Your task to perform on an android device: open app "Truecaller" Image 0: 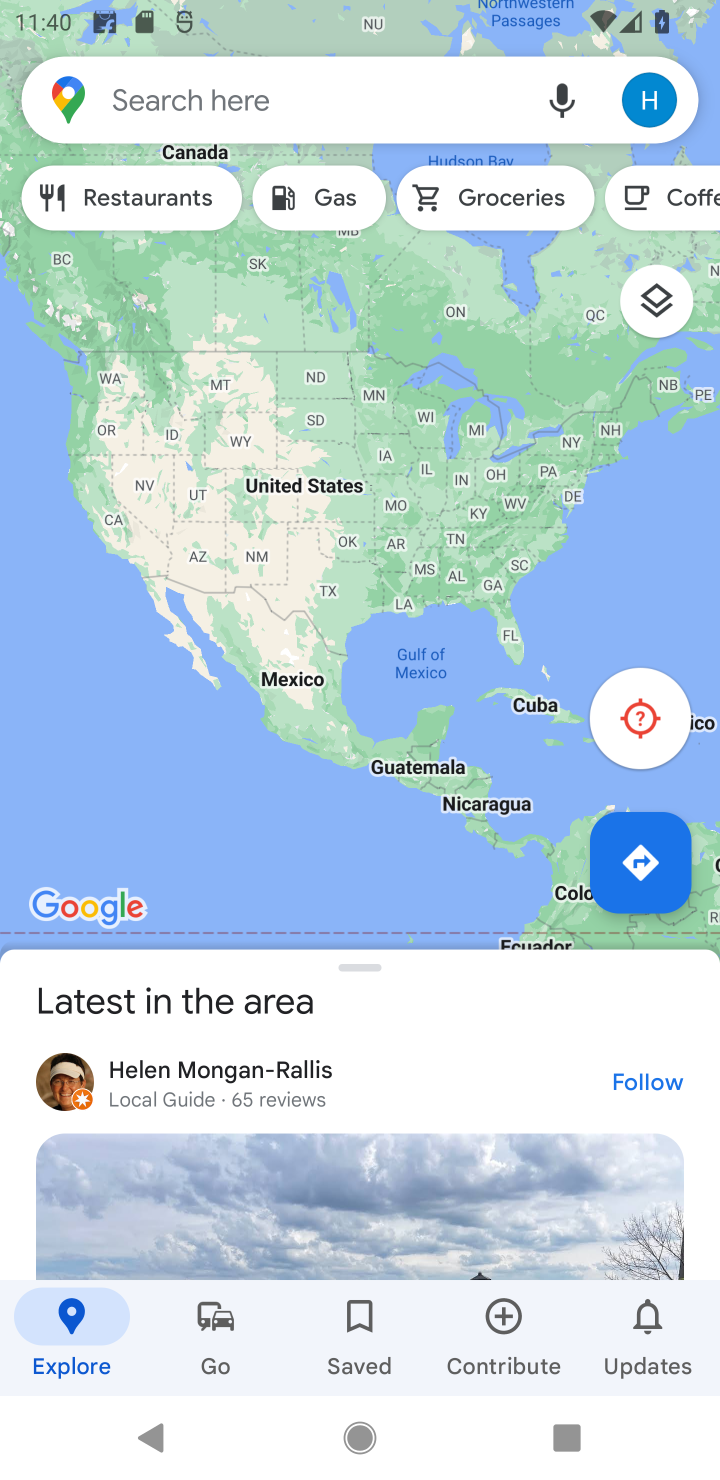
Step 0: press home button
Your task to perform on an android device: open app "Truecaller" Image 1: 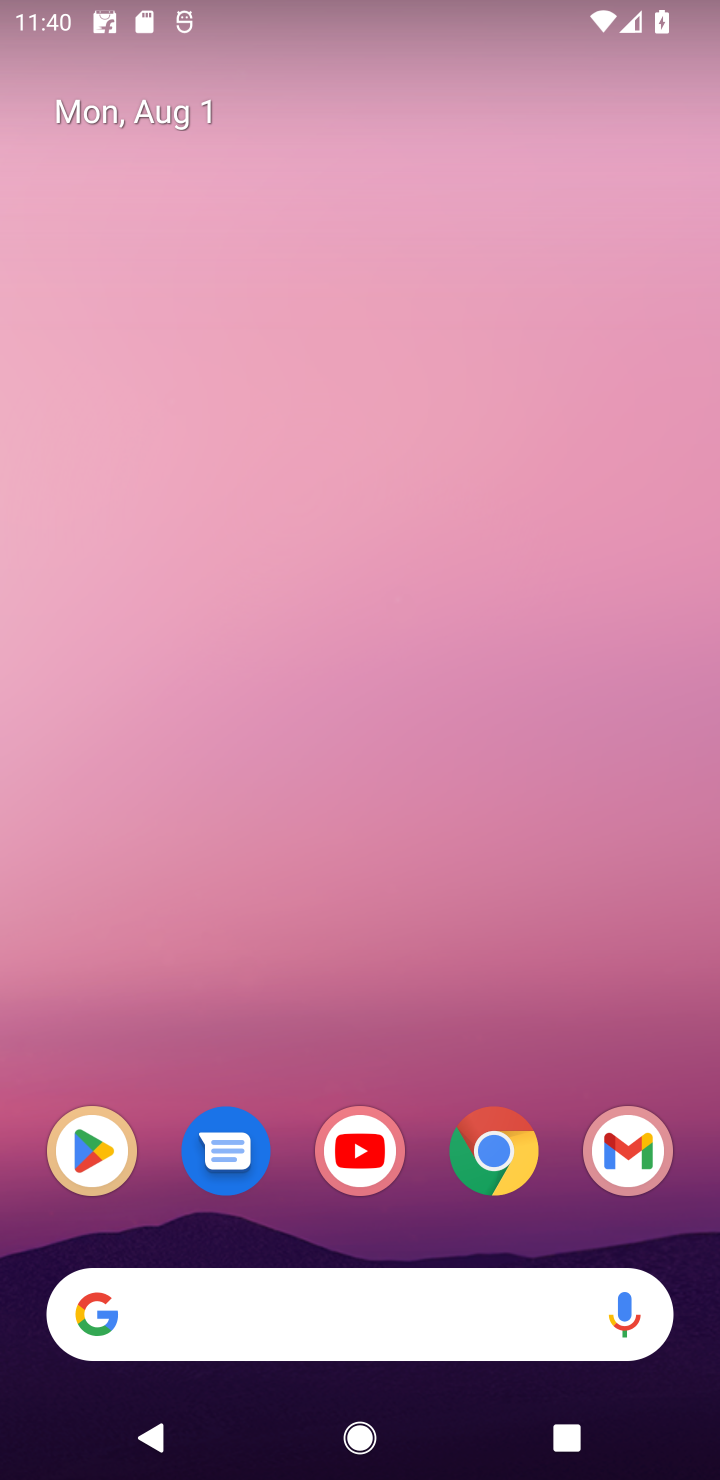
Step 1: click (111, 1146)
Your task to perform on an android device: open app "Truecaller" Image 2: 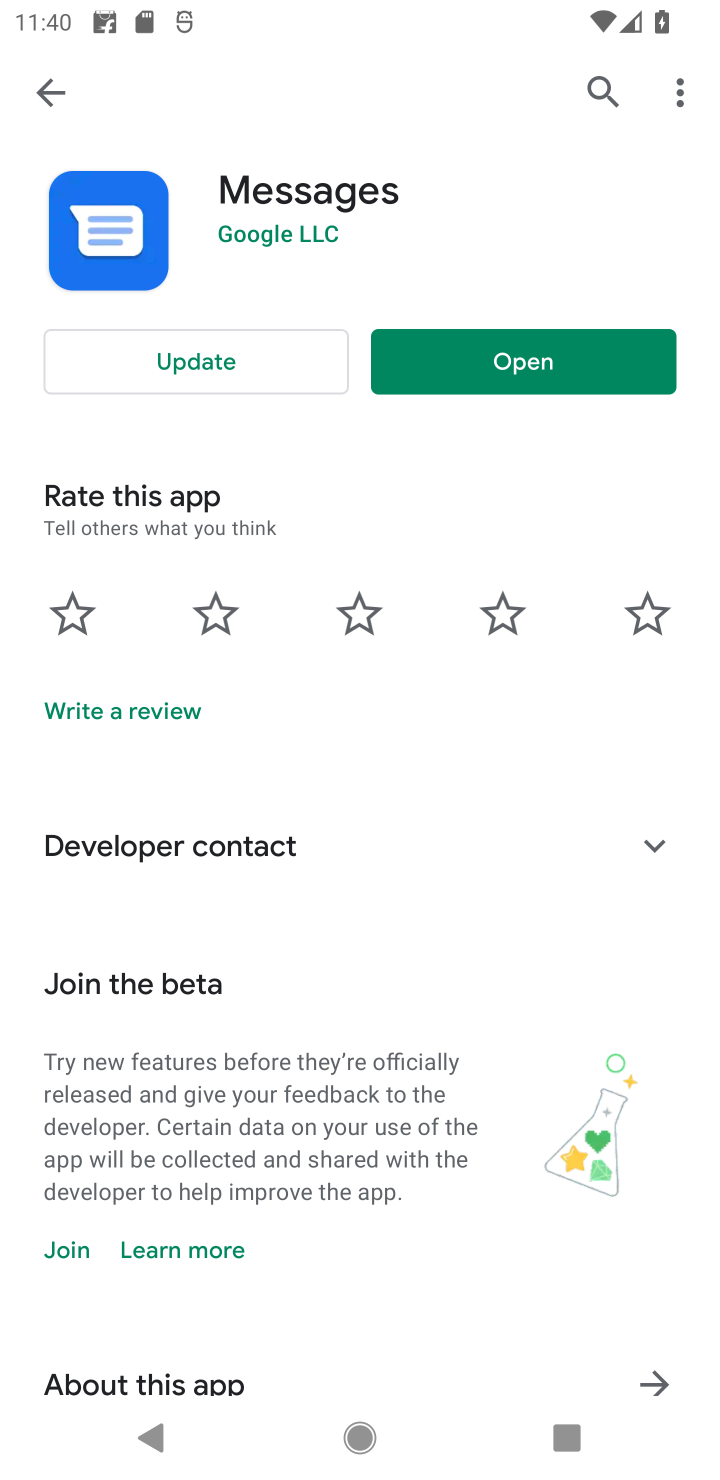
Step 2: click (608, 106)
Your task to perform on an android device: open app "Truecaller" Image 3: 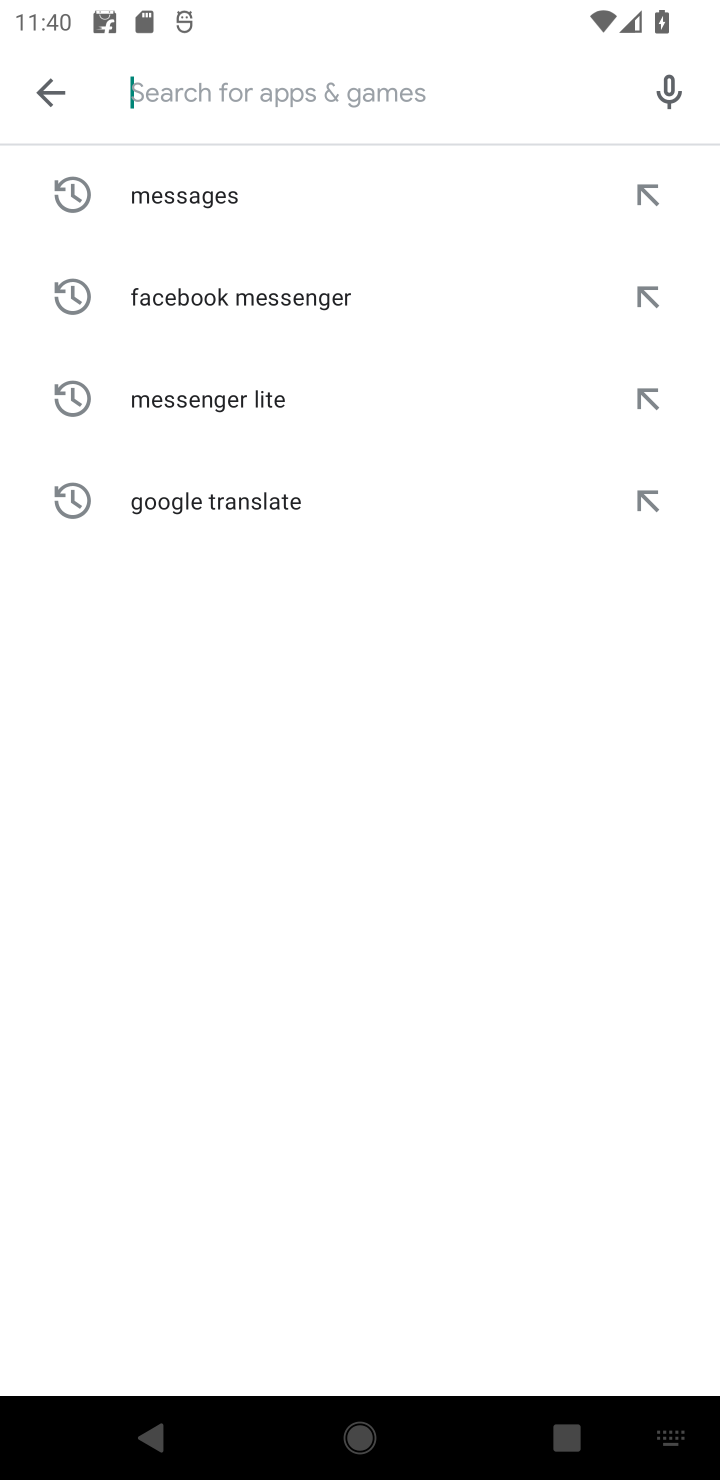
Step 3: type "Truecaller"
Your task to perform on an android device: open app "Truecaller" Image 4: 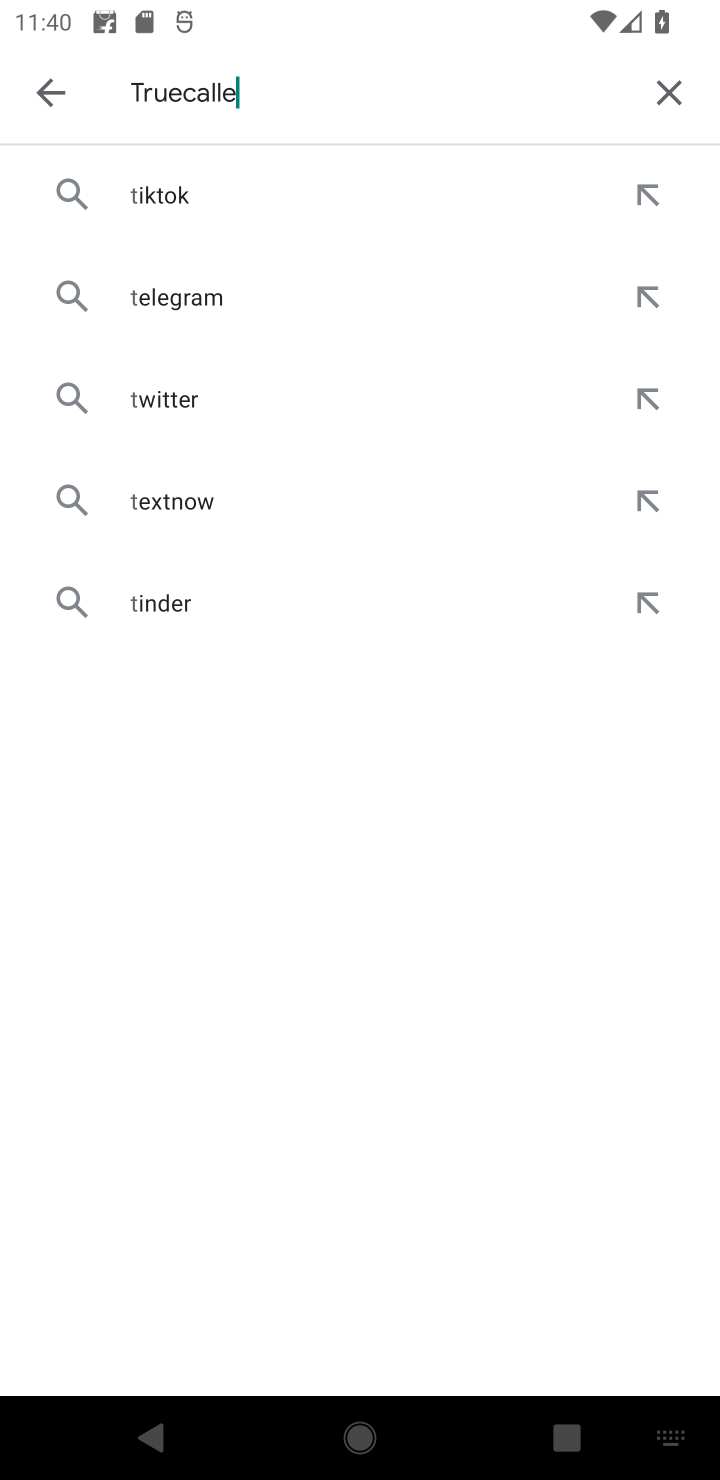
Step 4: type ""
Your task to perform on an android device: open app "Truecaller" Image 5: 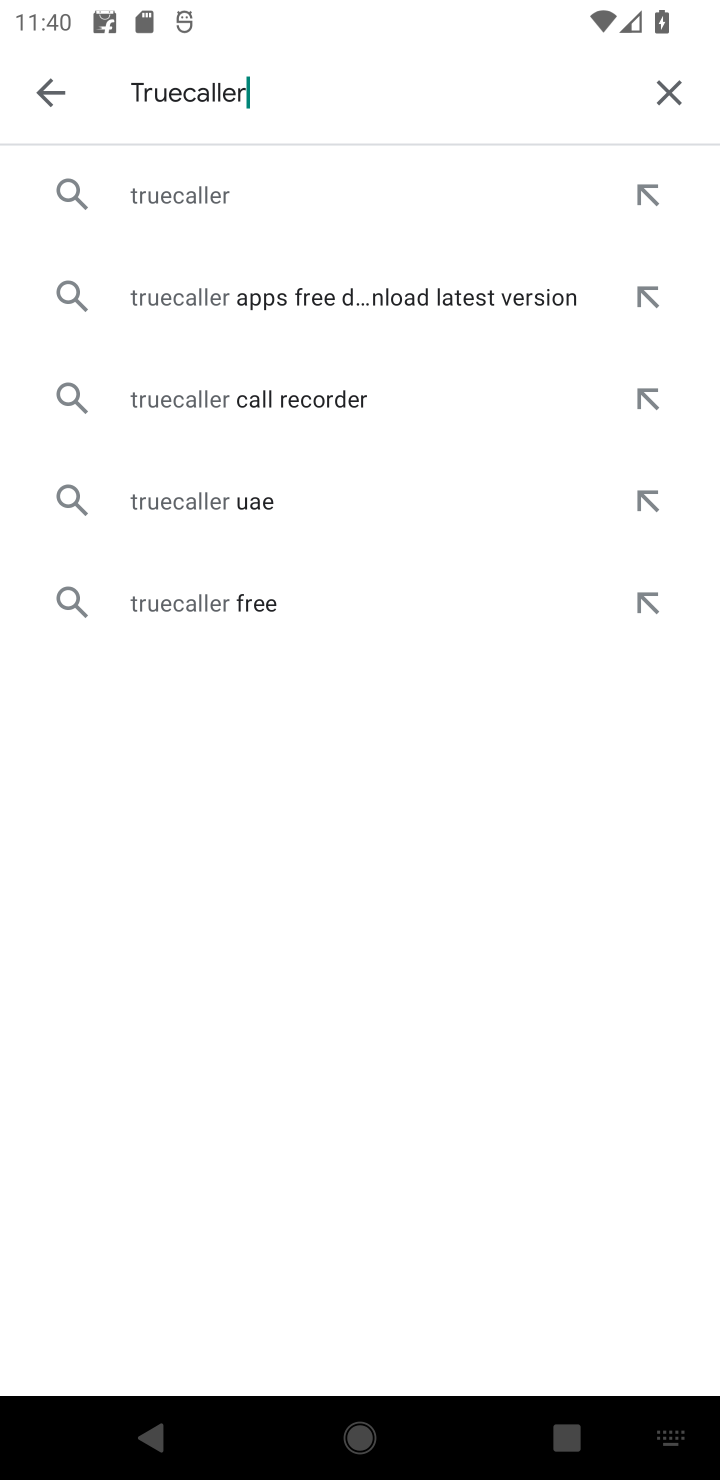
Step 5: click (259, 209)
Your task to perform on an android device: open app "Truecaller" Image 6: 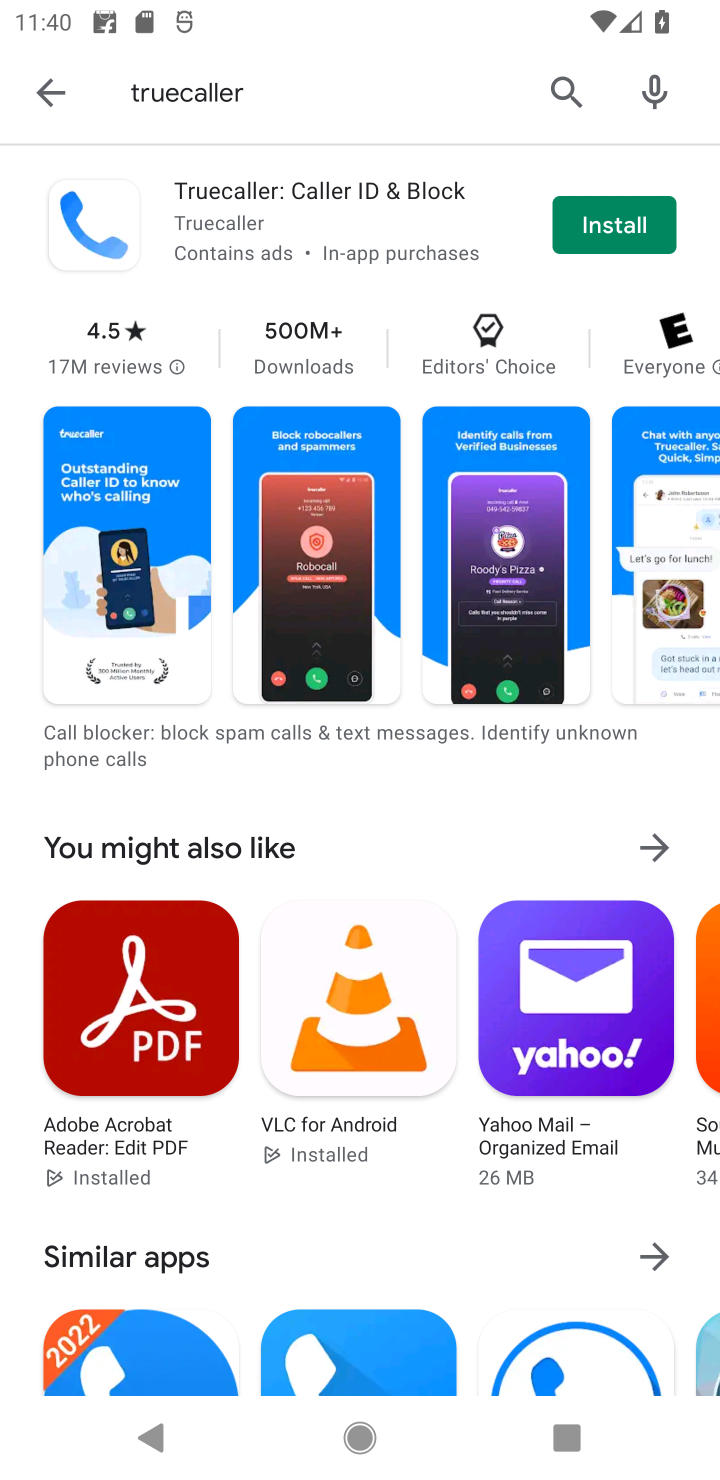
Step 6: task complete